Your task to perform on an android device: change alarm snooze length Image 0: 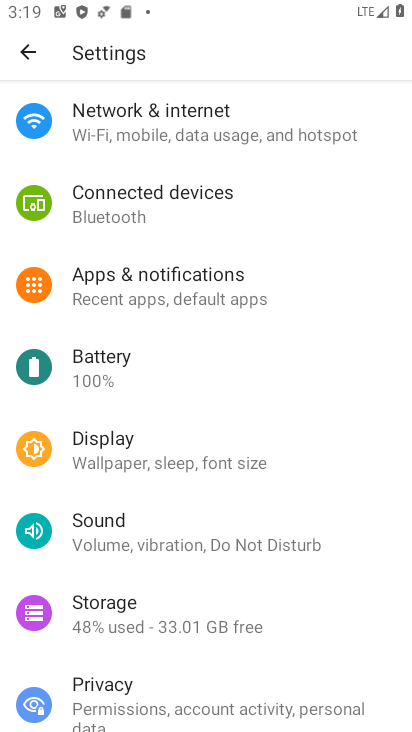
Step 0: press home button
Your task to perform on an android device: change alarm snooze length Image 1: 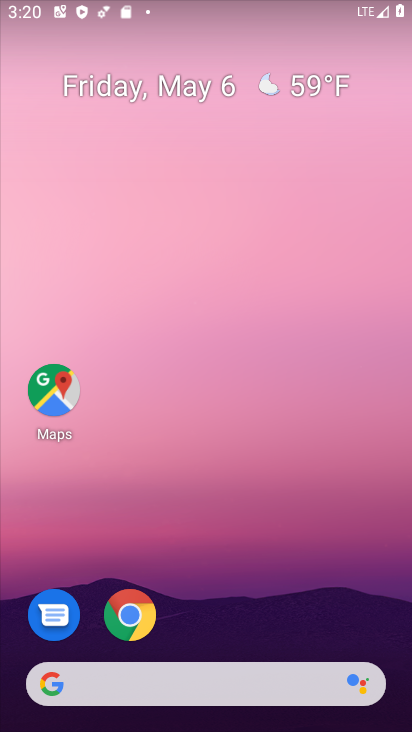
Step 1: drag from (248, 634) to (254, 266)
Your task to perform on an android device: change alarm snooze length Image 2: 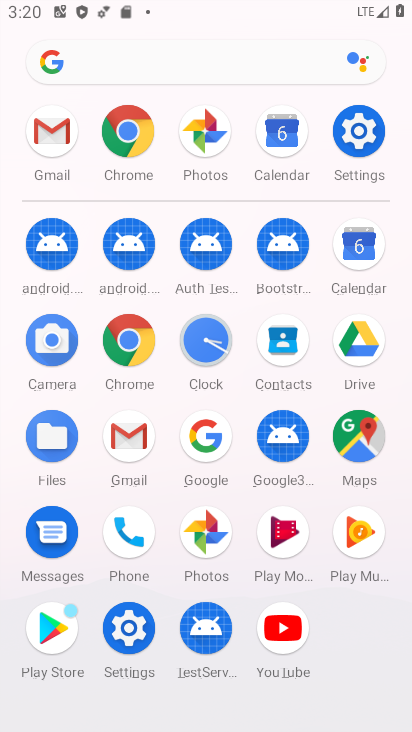
Step 2: click (208, 340)
Your task to perform on an android device: change alarm snooze length Image 3: 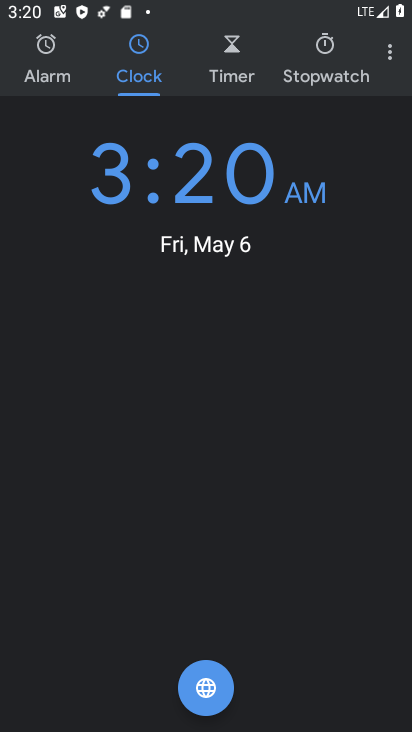
Step 3: click (386, 52)
Your task to perform on an android device: change alarm snooze length Image 4: 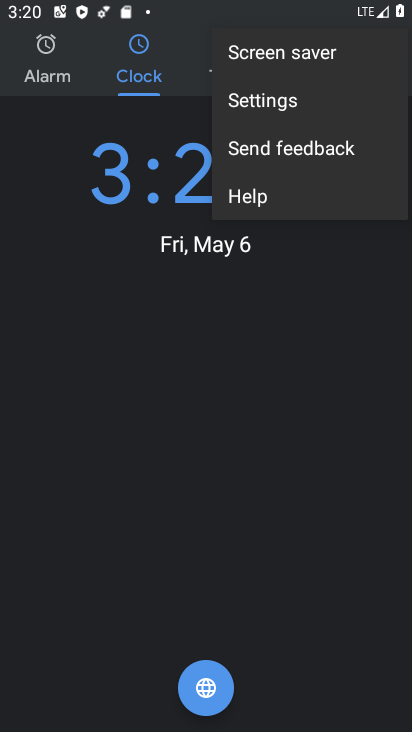
Step 4: click (266, 111)
Your task to perform on an android device: change alarm snooze length Image 5: 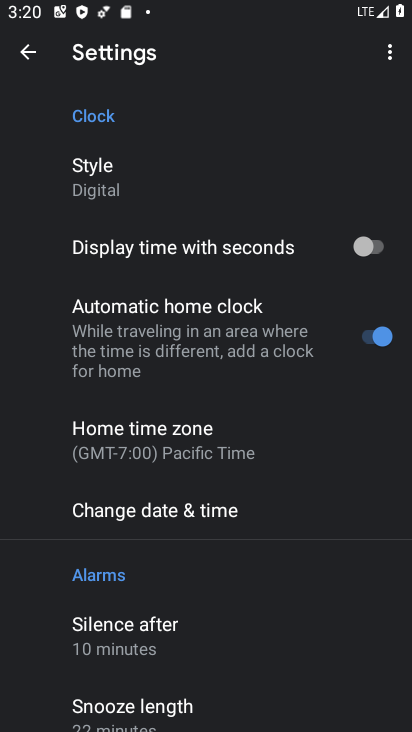
Step 5: click (199, 699)
Your task to perform on an android device: change alarm snooze length Image 6: 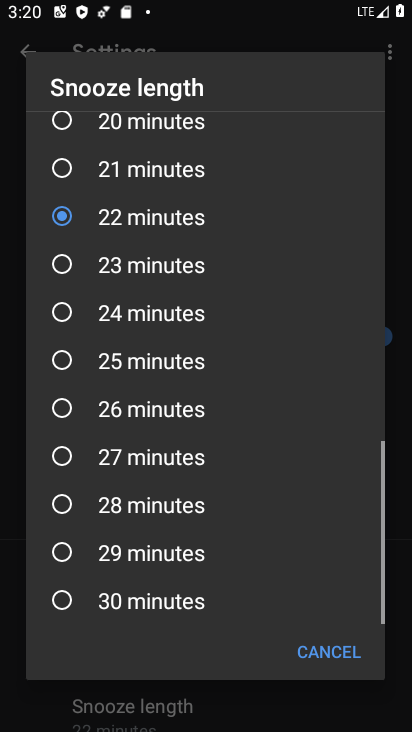
Step 6: click (103, 510)
Your task to perform on an android device: change alarm snooze length Image 7: 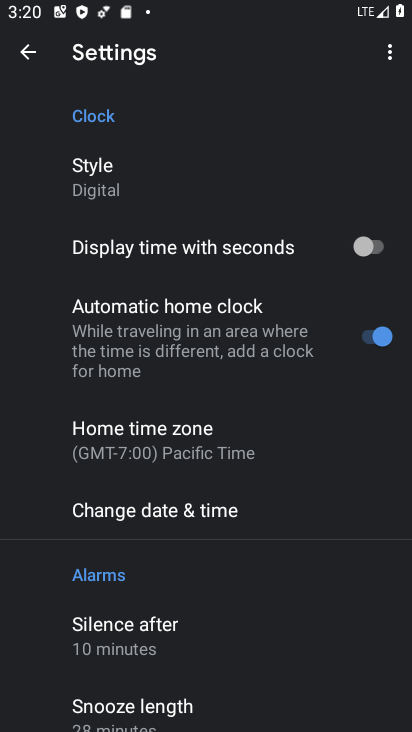
Step 7: task complete